Your task to perform on an android device: open app "Adobe Acrobat Reader: Edit PDF" (install if not already installed), go to login, and select forgot password Image 0: 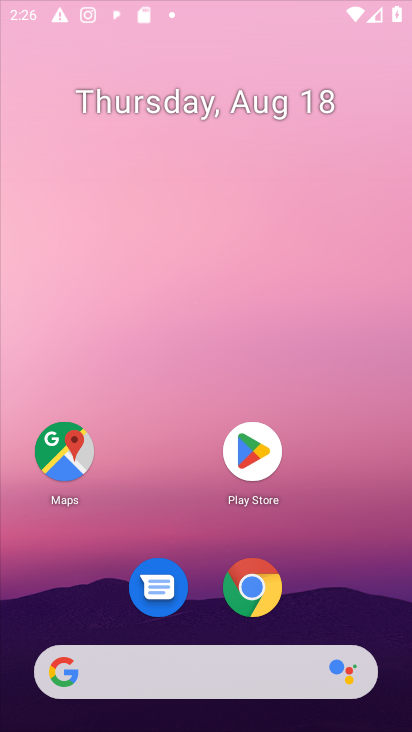
Step 0: press home button
Your task to perform on an android device: open app "Adobe Acrobat Reader: Edit PDF" (install if not already installed), go to login, and select forgot password Image 1: 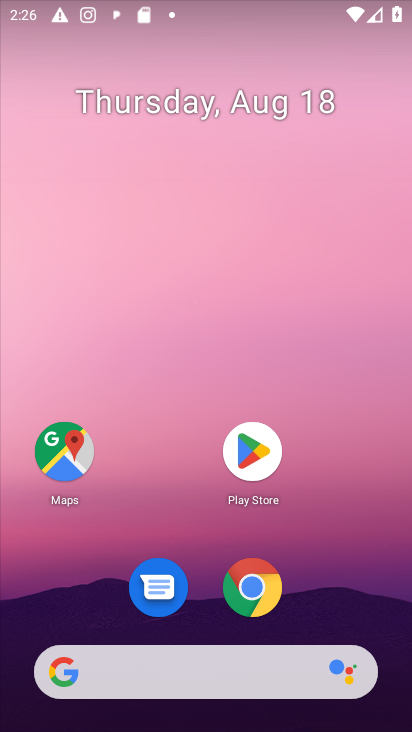
Step 1: press home button
Your task to perform on an android device: open app "Adobe Acrobat Reader: Edit PDF" (install if not already installed), go to login, and select forgot password Image 2: 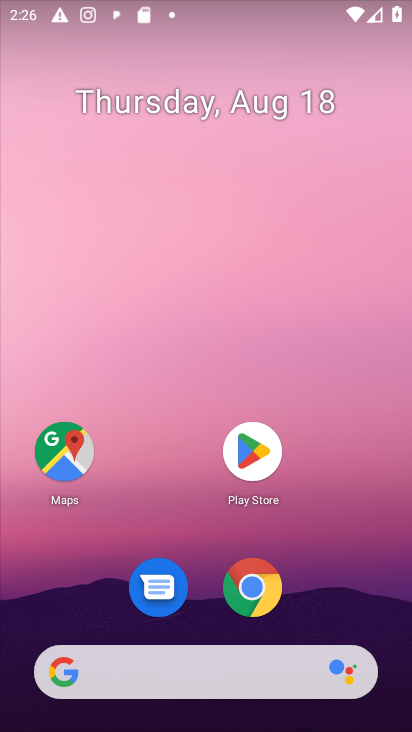
Step 2: click (264, 458)
Your task to perform on an android device: open app "Adobe Acrobat Reader: Edit PDF" (install if not already installed), go to login, and select forgot password Image 3: 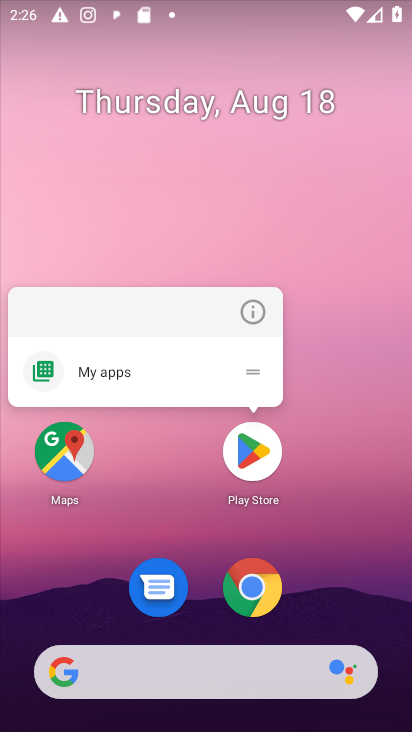
Step 3: click (264, 462)
Your task to perform on an android device: open app "Adobe Acrobat Reader: Edit PDF" (install if not already installed), go to login, and select forgot password Image 4: 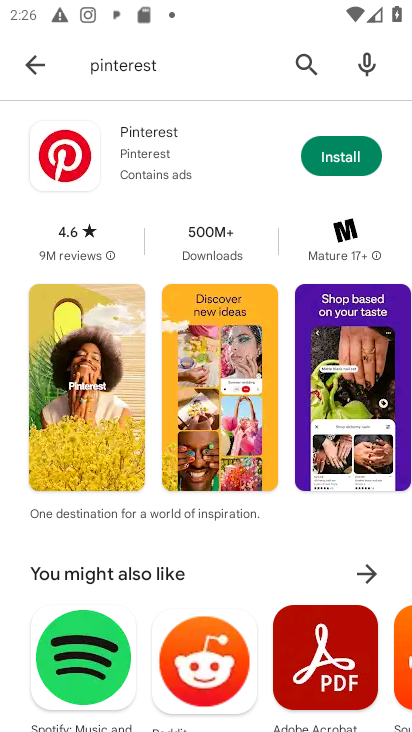
Step 4: click (296, 59)
Your task to perform on an android device: open app "Adobe Acrobat Reader: Edit PDF" (install if not already installed), go to login, and select forgot password Image 5: 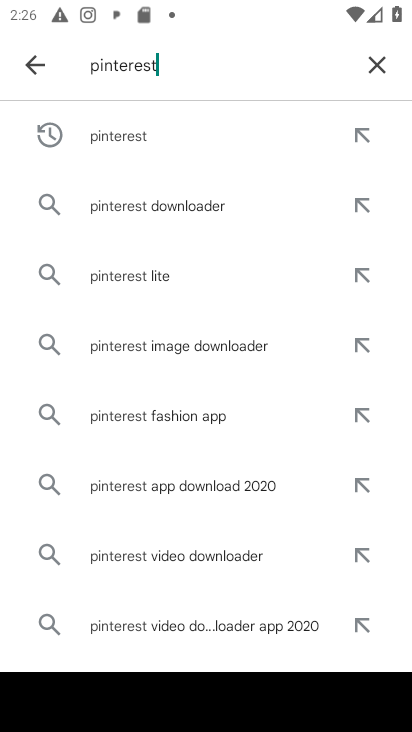
Step 5: click (375, 59)
Your task to perform on an android device: open app "Adobe Acrobat Reader: Edit PDF" (install if not already installed), go to login, and select forgot password Image 6: 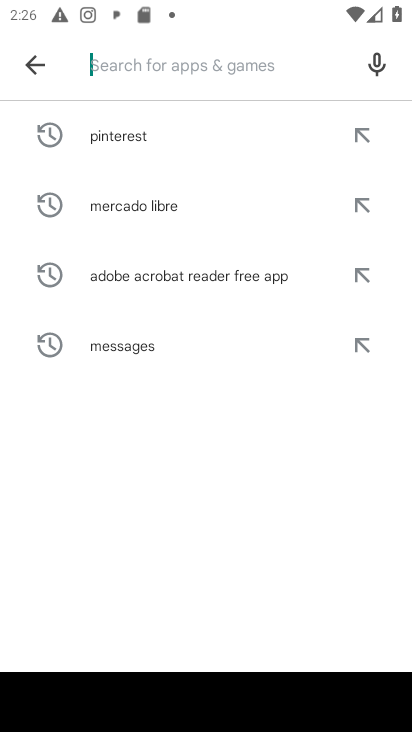
Step 6: type "Adobe Acrobat Reader: Edit PDF"
Your task to perform on an android device: open app "Adobe Acrobat Reader: Edit PDF" (install if not already installed), go to login, and select forgot password Image 7: 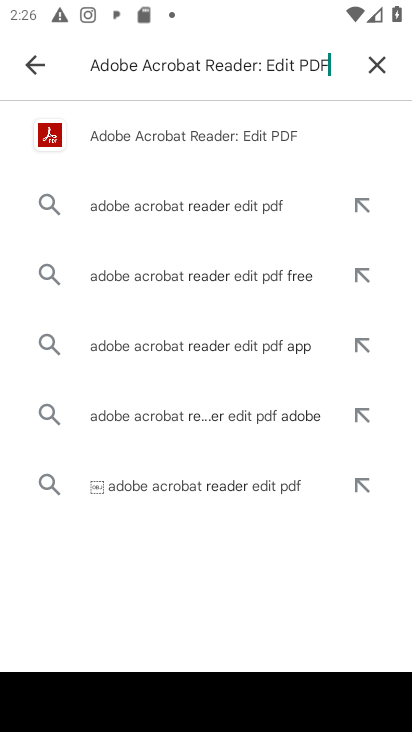
Step 7: click (228, 140)
Your task to perform on an android device: open app "Adobe Acrobat Reader: Edit PDF" (install if not already installed), go to login, and select forgot password Image 8: 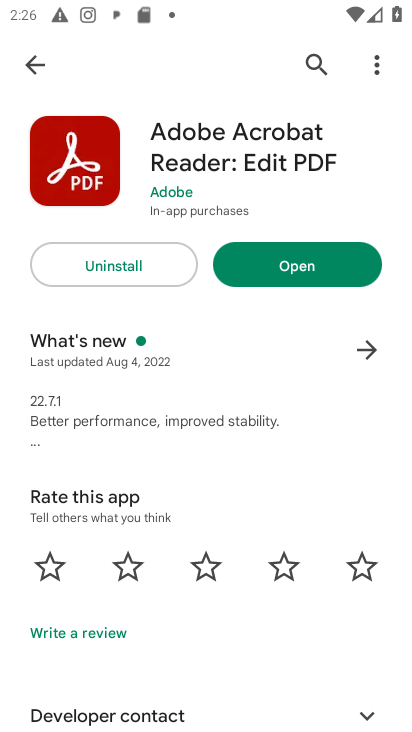
Step 8: click (317, 273)
Your task to perform on an android device: open app "Adobe Acrobat Reader: Edit PDF" (install if not already installed), go to login, and select forgot password Image 9: 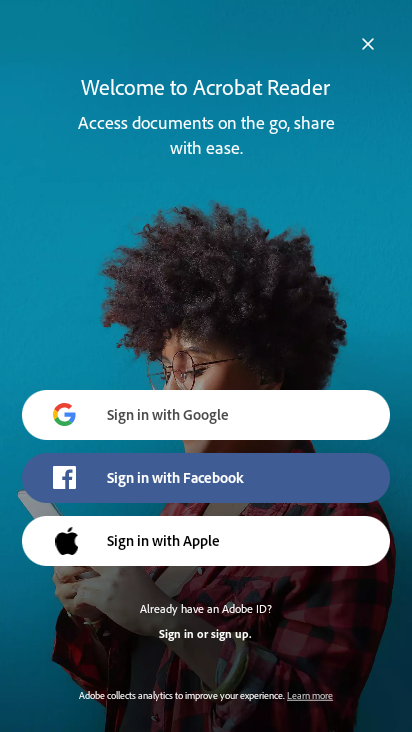
Step 9: task complete